Your task to perform on an android device: toggle javascript in the chrome app Image 0: 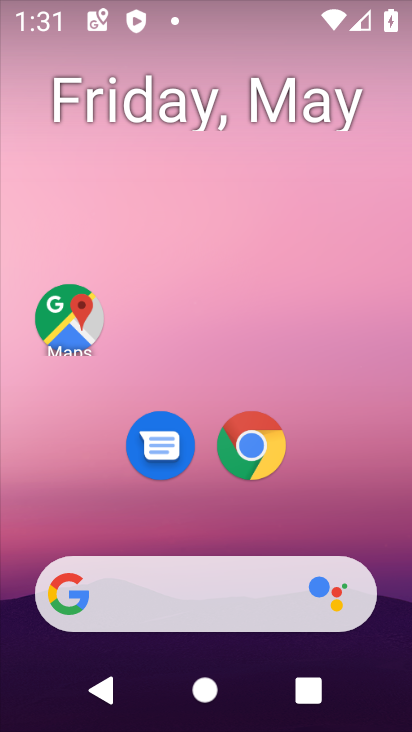
Step 0: click (252, 443)
Your task to perform on an android device: toggle javascript in the chrome app Image 1: 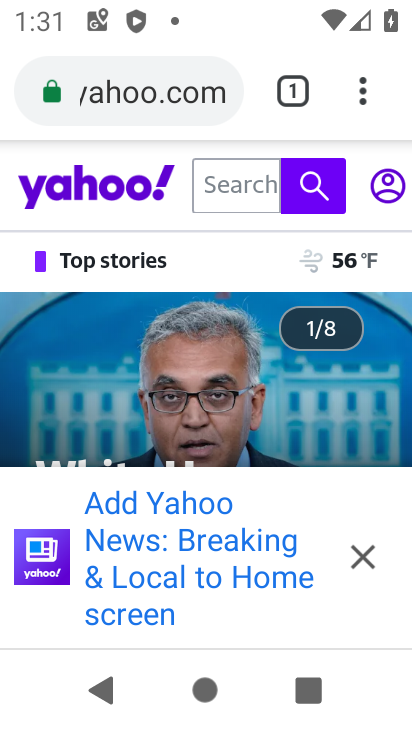
Step 1: click (360, 93)
Your task to perform on an android device: toggle javascript in the chrome app Image 2: 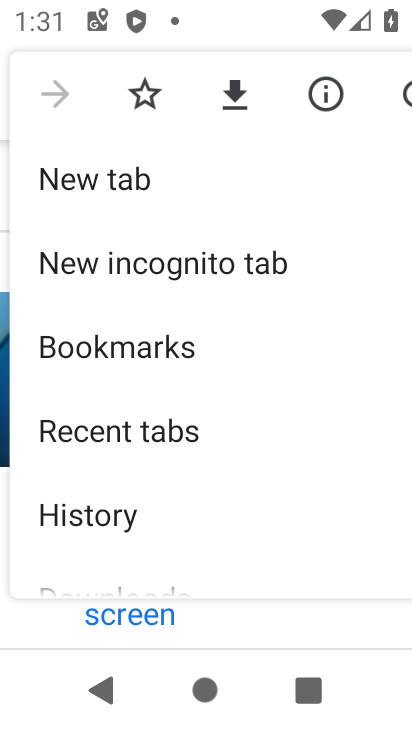
Step 2: drag from (230, 550) to (250, 283)
Your task to perform on an android device: toggle javascript in the chrome app Image 3: 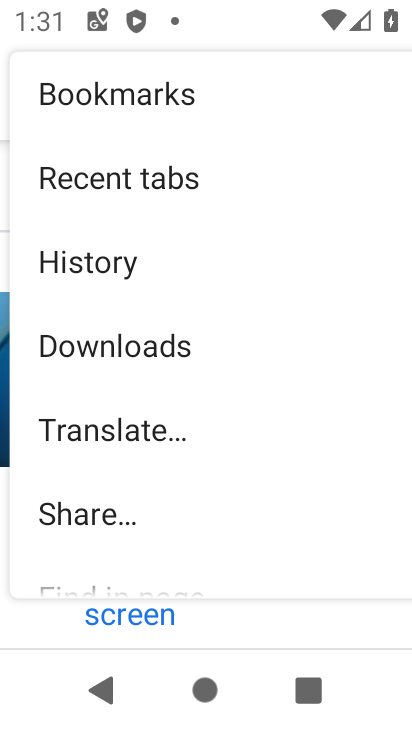
Step 3: drag from (224, 537) to (217, 153)
Your task to perform on an android device: toggle javascript in the chrome app Image 4: 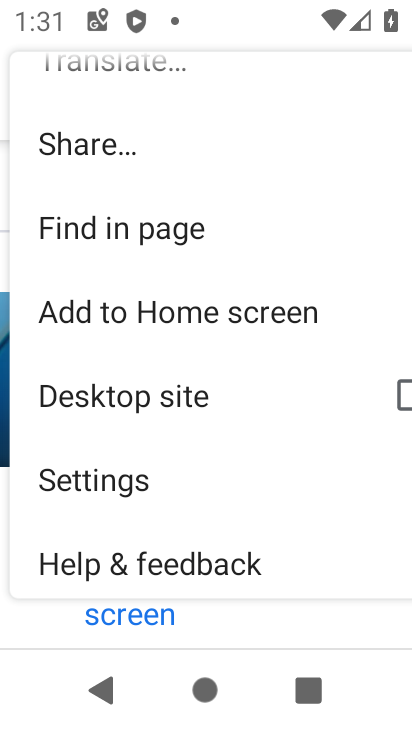
Step 4: click (115, 474)
Your task to perform on an android device: toggle javascript in the chrome app Image 5: 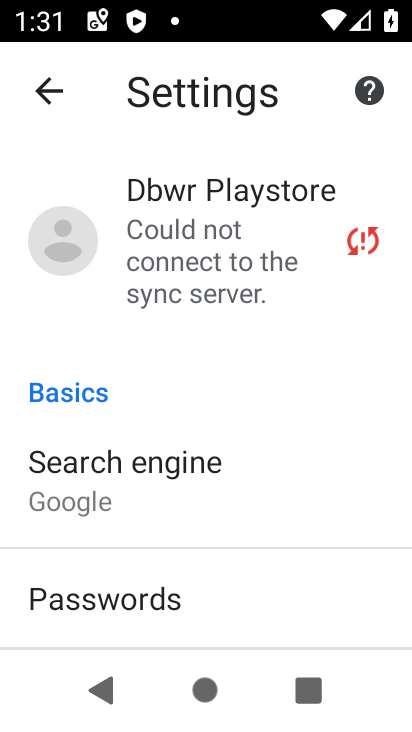
Step 5: drag from (285, 590) to (302, 186)
Your task to perform on an android device: toggle javascript in the chrome app Image 6: 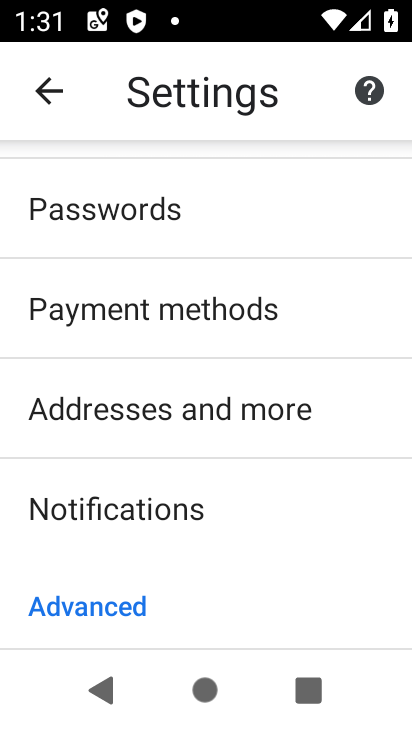
Step 6: drag from (242, 595) to (279, 215)
Your task to perform on an android device: toggle javascript in the chrome app Image 7: 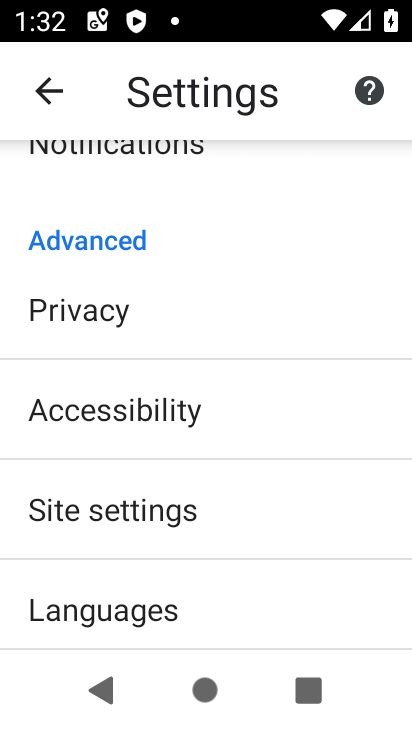
Step 7: click (97, 497)
Your task to perform on an android device: toggle javascript in the chrome app Image 8: 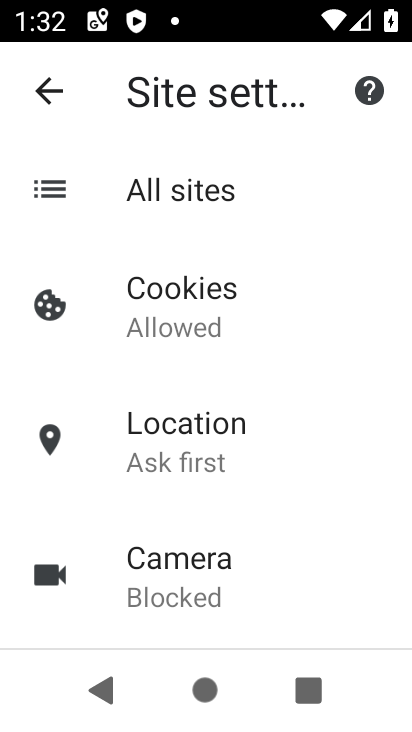
Step 8: drag from (275, 603) to (270, 206)
Your task to perform on an android device: toggle javascript in the chrome app Image 9: 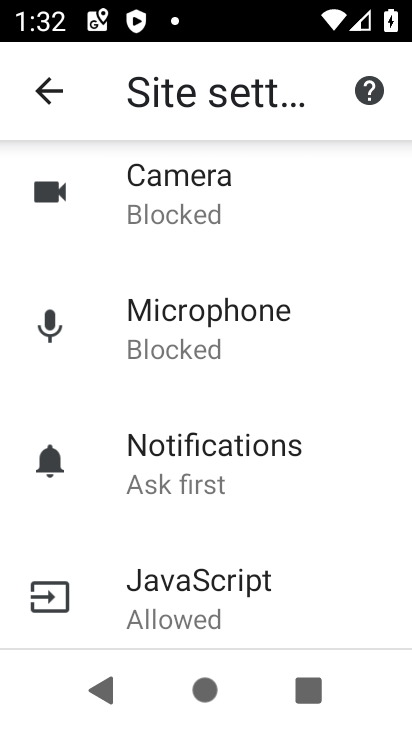
Step 9: click (204, 579)
Your task to perform on an android device: toggle javascript in the chrome app Image 10: 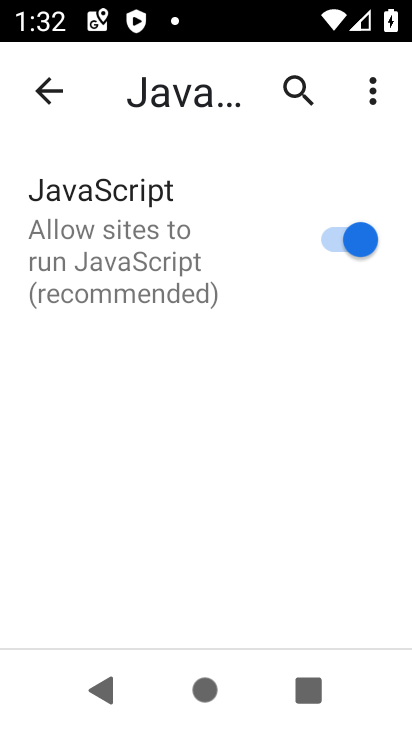
Step 10: click (327, 230)
Your task to perform on an android device: toggle javascript in the chrome app Image 11: 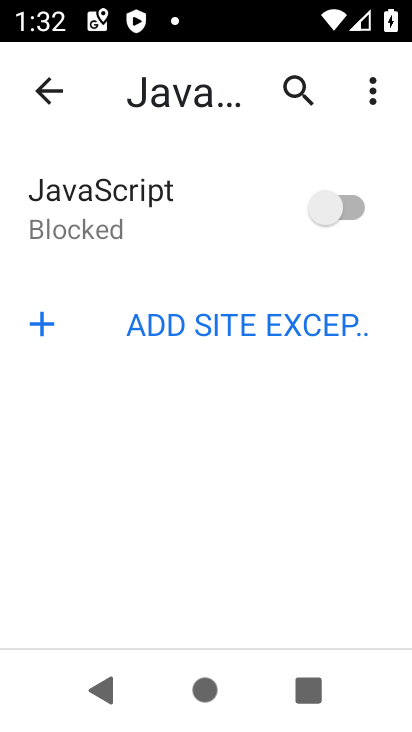
Step 11: task complete